Your task to perform on an android device: change the clock display to show seconds Image 0: 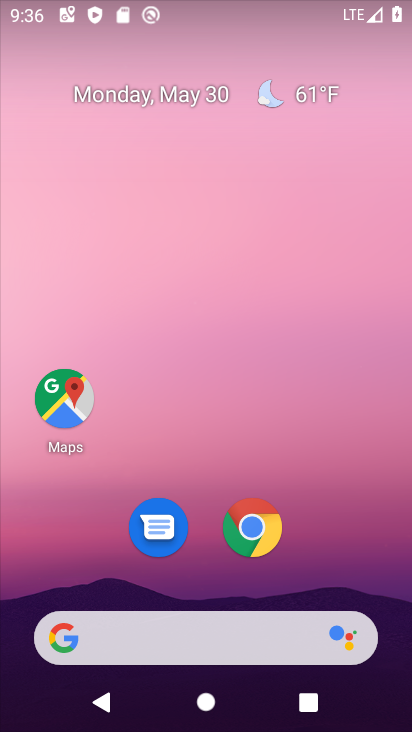
Step 0: drag from (204, 584) to (195, 1)
Your task to perform on an android device: change the clock display to show seconds Image 1: 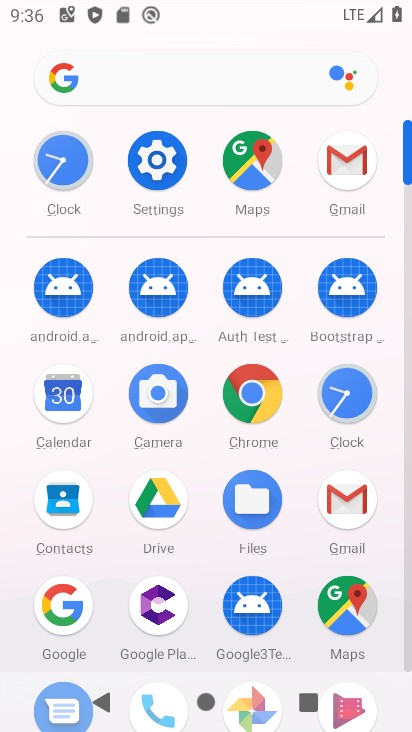
Step 1: click (348, 389)
Your task to perform on an android device: change the clock display to show seconds Image 2: 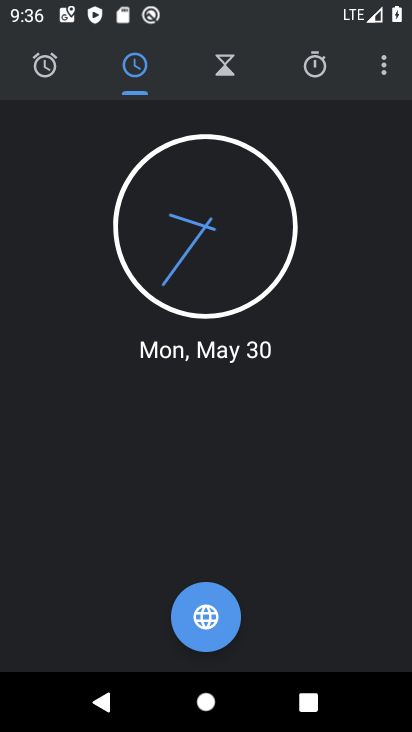
Step 2: click (374, 79)
Your task to perform on an android device: change the clock display to show seconds Image 3: 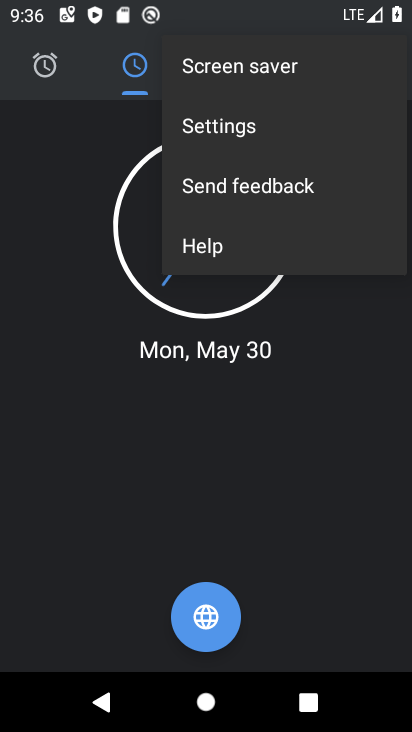
Step 3: click (281, 141)
Your task to perform on an android device: change the clock display to show seconds Image 4: 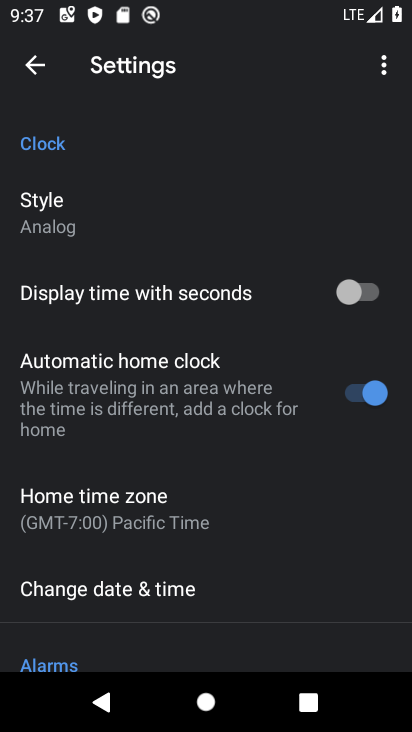
Step 4: click (354, 286)
Your task to perform on an android device: change the clock display to show seconds Image 5: 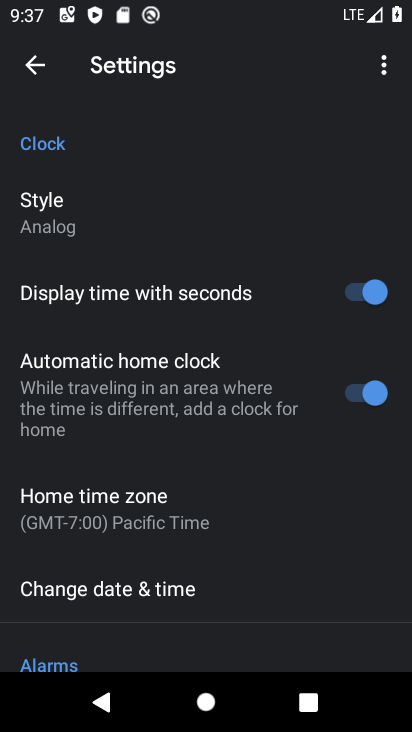
Step 5: task complete